Your task to perform on an android device: Open Android settings Image 0: 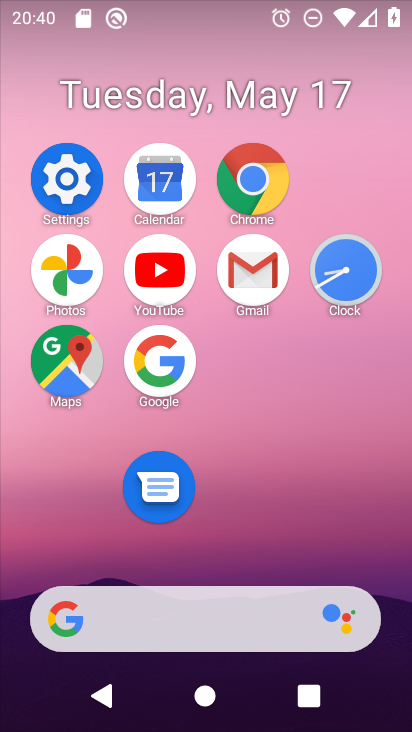
Step 0: click (112, 198)
Your task to perform on an android device: Open Android settings Image 1: 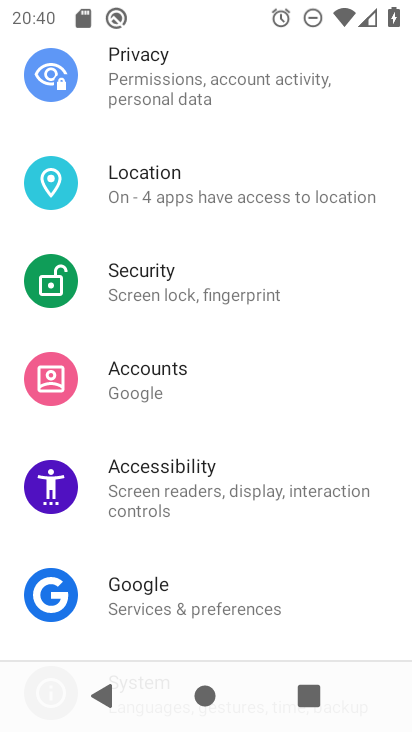
Step 1: task complete